Your task to perform on an android device: all mails in gmail Image 0: 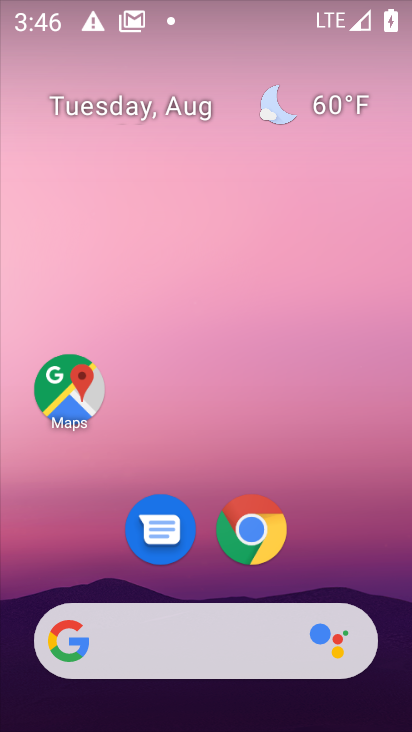
Step 0: drag from (357, 532) to (303, 85)
Your task to perform on an android device: all mails in gmail Image 1: 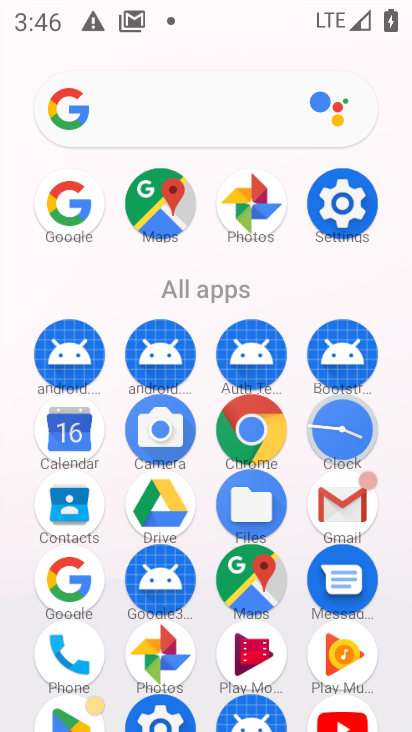
Step 1: click (357, 517)
Your task to perform on an android device: all mails in gmail Image 2: 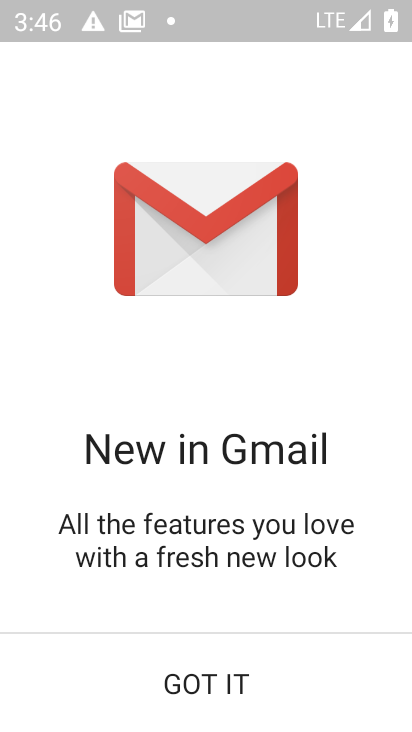
Step 2: click (224, 709)
Your task to perform on an android device: all mails in gmail Image 3: 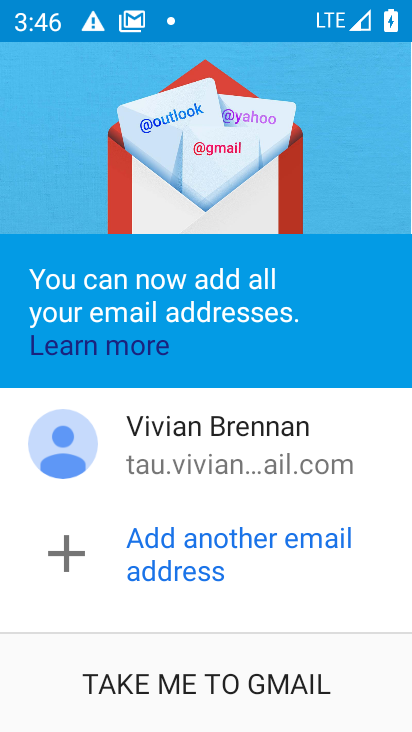
Step 3: click (263, 695)
Your task to perform on an android device: all mails in gmail Image 4: 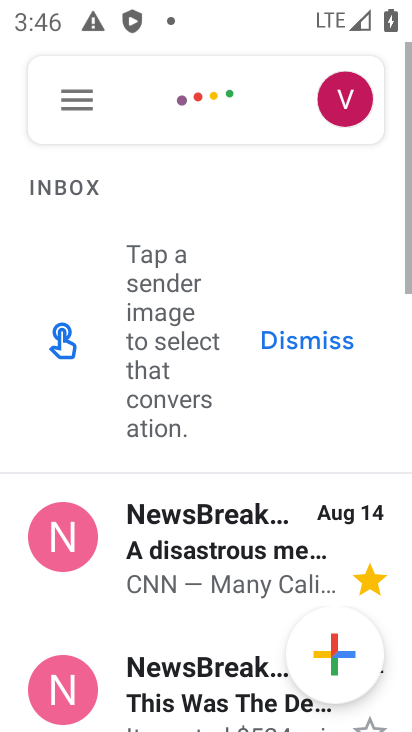
Step 4: click (76, 124)
Your task to perform on an android device: all mails in gmail Image 5: 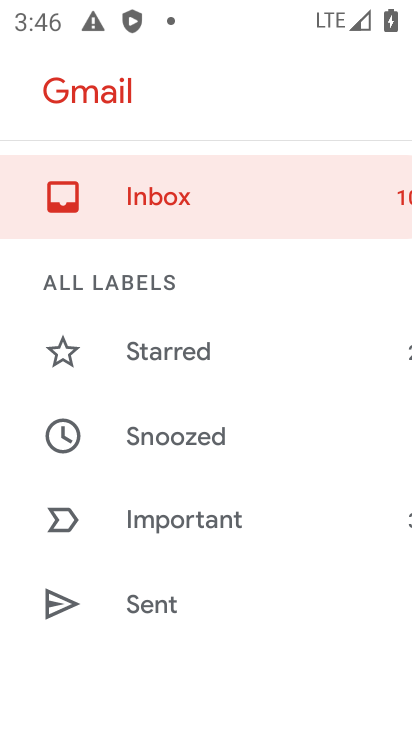
Step 5: drag from (253, 620) to (234, 208)
Your task to perform on an android device: all mails in gmail Image 6: 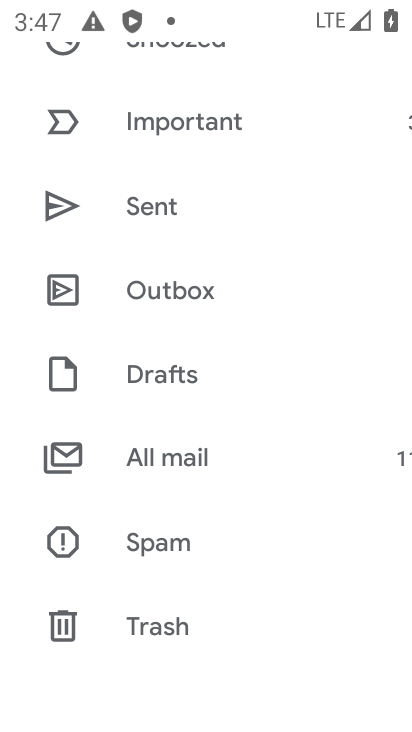
Step 6: click (228, 451)
Your task to perform on an android device: all mails in gmail Image 7: 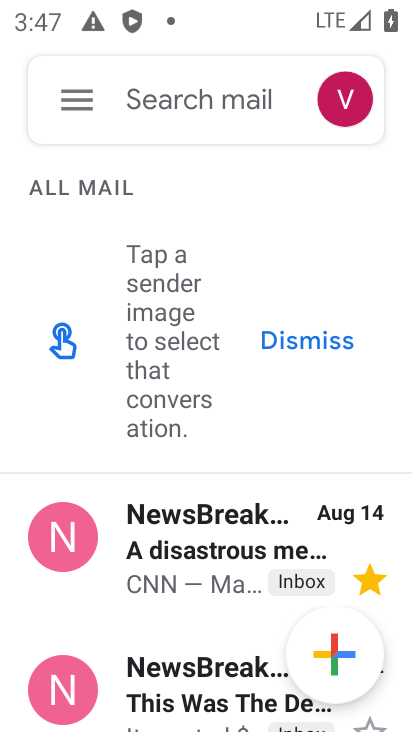
Step 7: task complete